Your task to perform on an android device: toggle priority inbox in the gmail app Image 0: 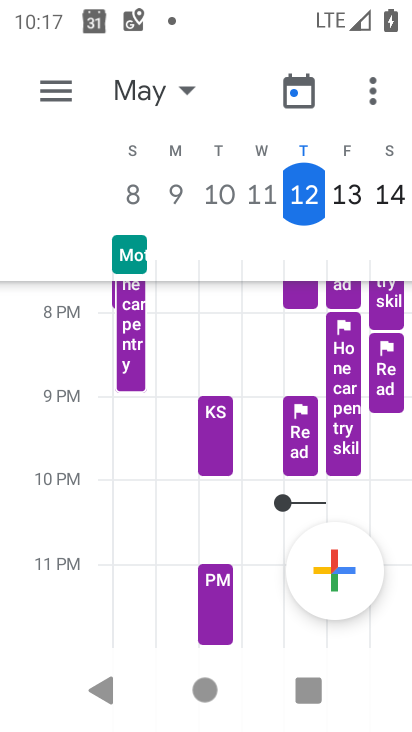
Step 0: press home button
Your task to perform on an android device: toggle priority inbox in the gmail app Image 1: 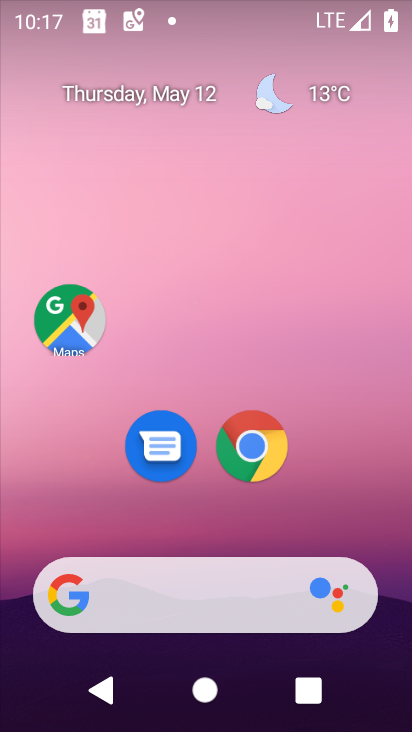
Step 1: drag from (270, 567) to (260, 11)
Your task to perform on an android device: toggle priority inbox in the gmail app Image 2: 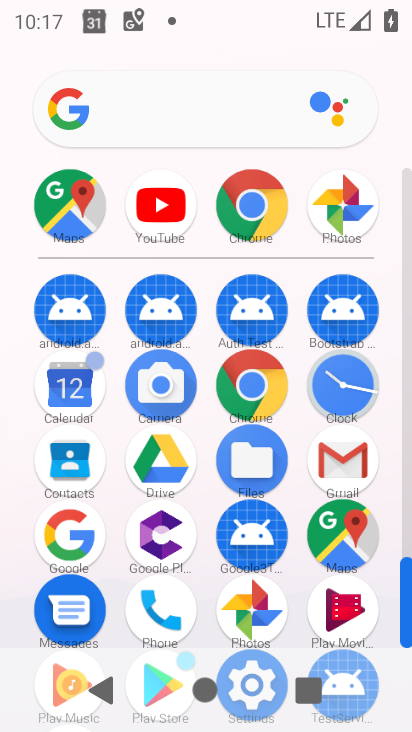
Step 2: click (344, 452)
Your task to perform on an android device: toggle priority inbox in the gmail app Image 3: 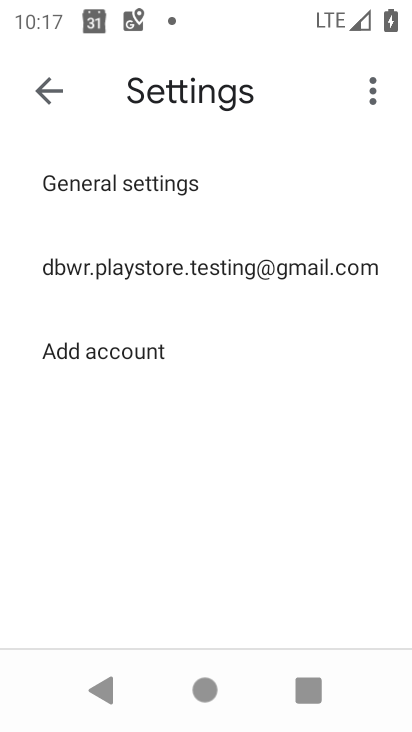
Step 3: click (256, 269)
Your task to perform on an android device: toggle priority inbox in the gmail app Image 4: 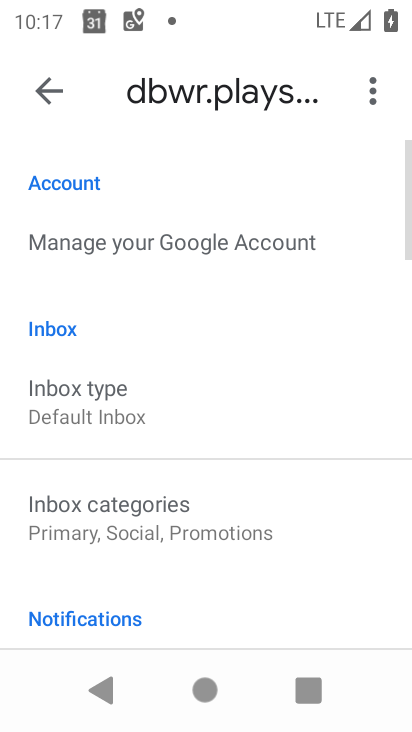
Step 4: click (108, 415)
Your task to perform on an android device: toggle priority inbox in the gmail app Image 5: 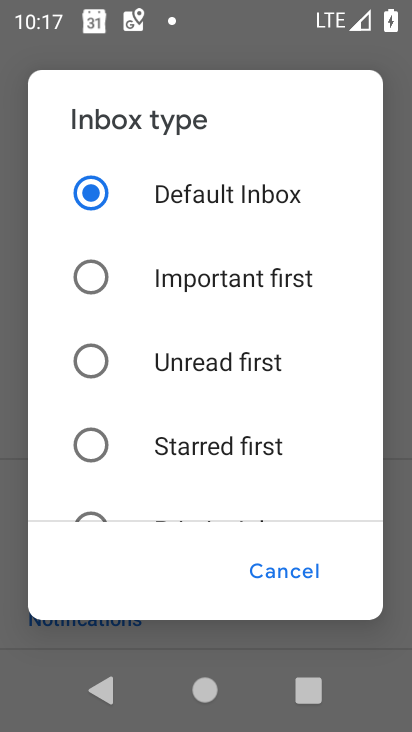
Step 5: drag from (142, 495) to (209, 80)
Your task to perform on an android device: toggle priority inbox in the gmail app Image 6: 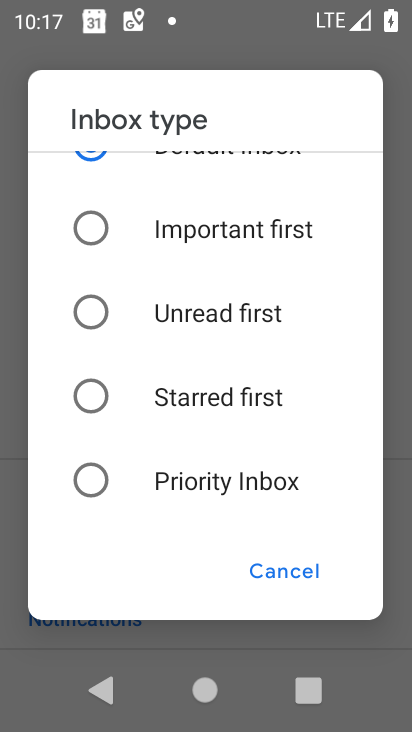
Step 6: click (94, 483)
Your task to perform on an android device: toggle priority inbox in the gmail app Image 7: 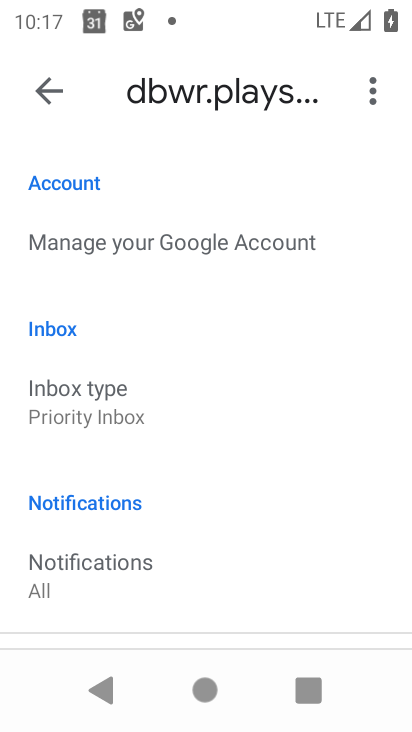
Step 7: task complete